Your task to perform on an android device: Search for coffee table on Crate & Barrel Image 0: 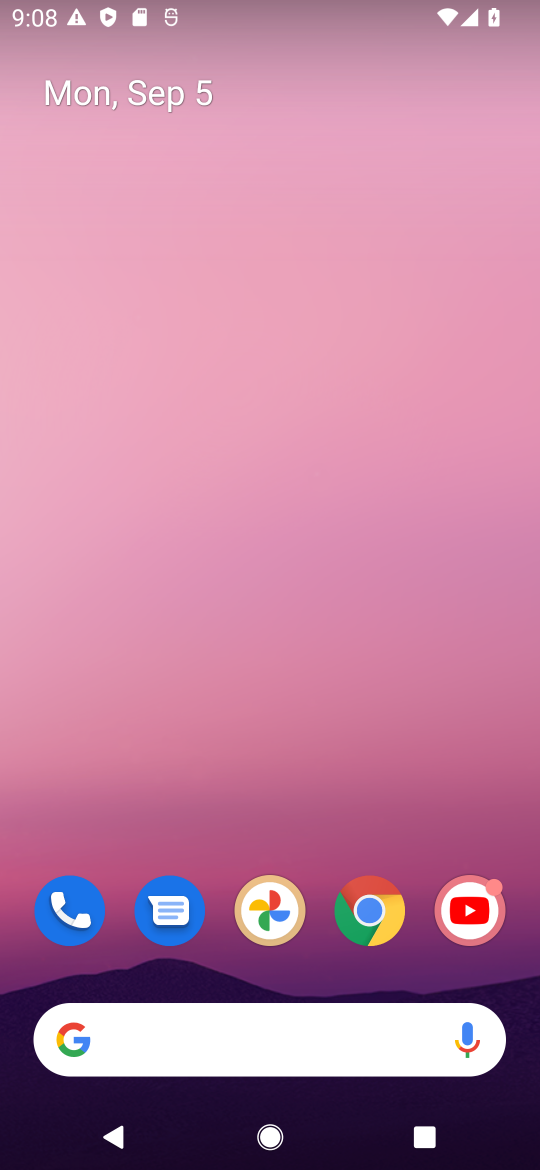
Step 0: click (385, 934)
Your task to perform on an android device: Search for coffee table on Crate & Barrel Image 1: 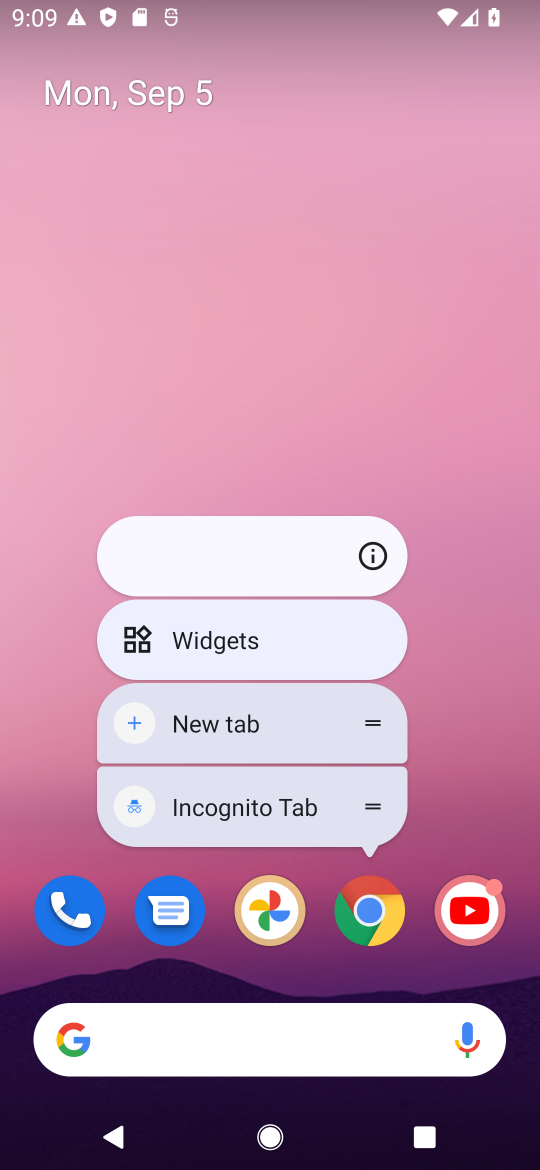
Step 1: click (365, 933)
Your task to perform on an android device: Search for coffee table on Crate & Barrel Image 2: 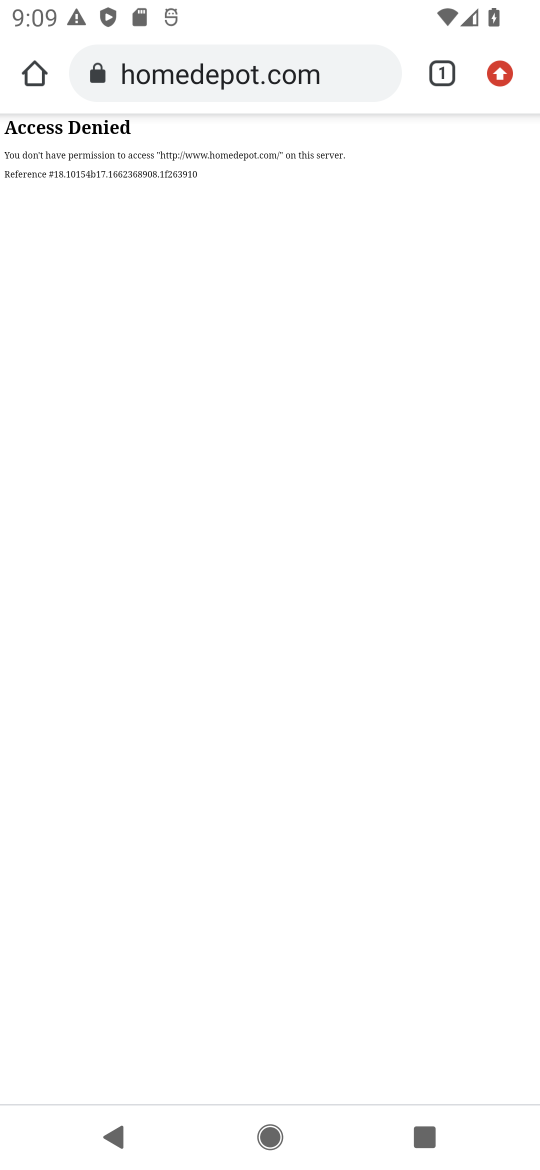
Step 2: click (202, 78)
Your task to perform on an android device: Search for coffee table on Crate & Barrel Image 3: 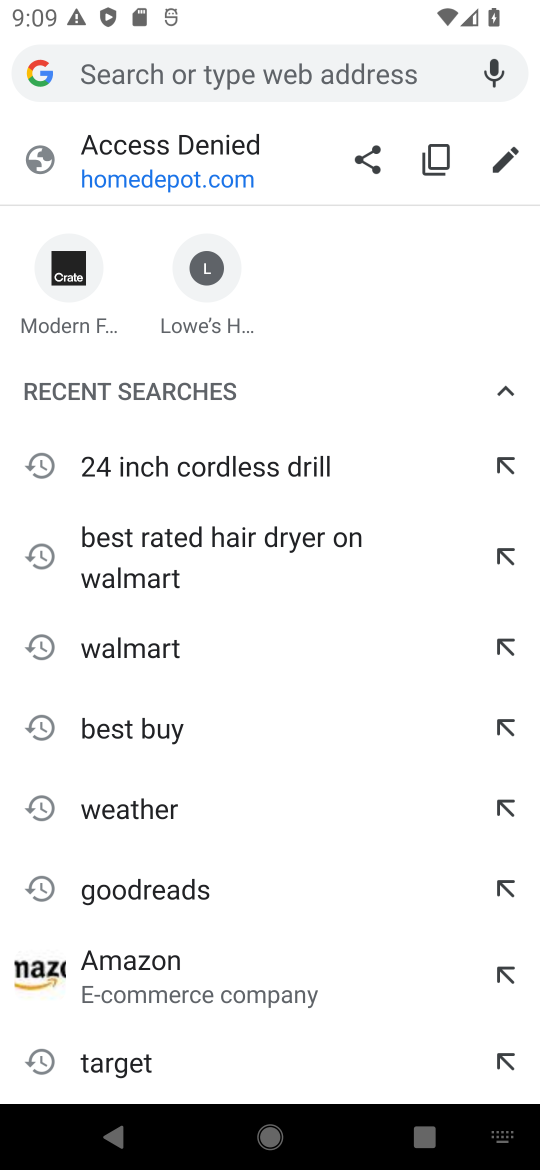
Step 3: type "crate and barrel"
Your task to perform on an android device: Search for coffee table on Crate & Barrel Image 4: 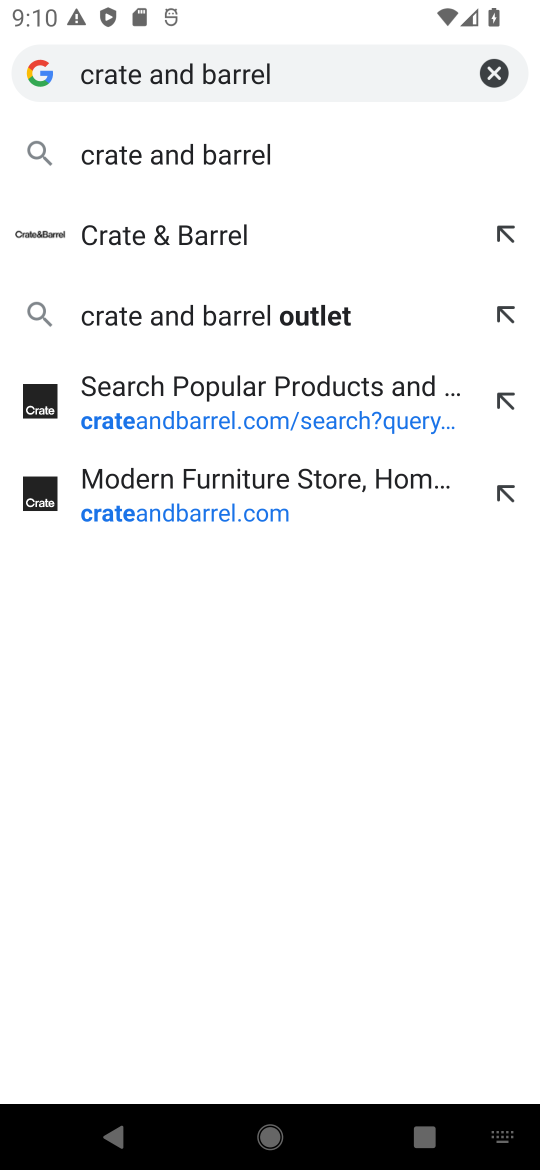
Step 4: click (339, 491)
Your task to perform on an android device: Search for coffee table on Crate & Barrel Image 5: 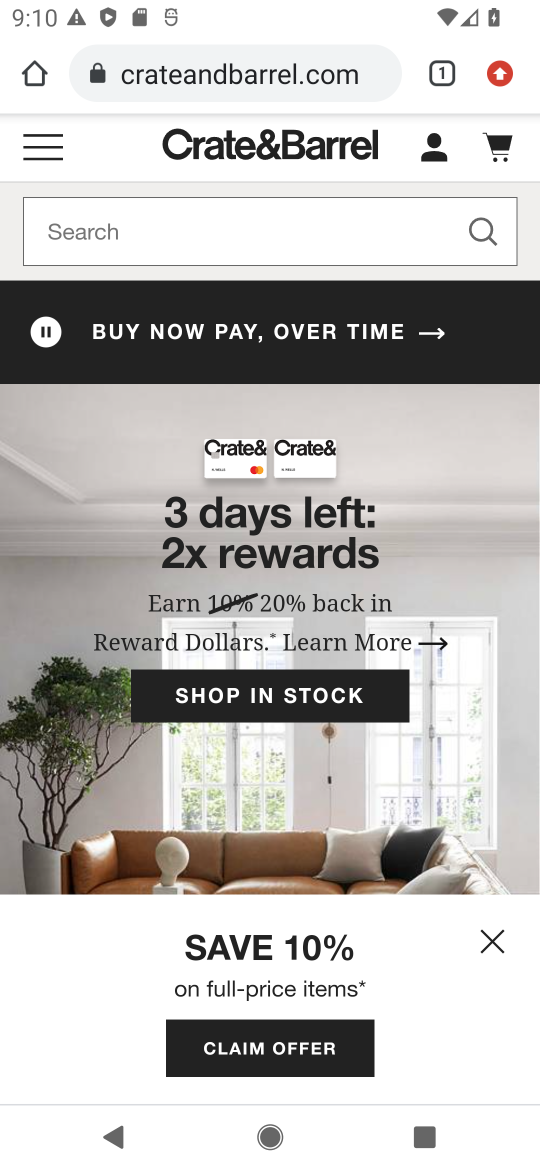
Step 5: click (157, 270)
Your task to perform on an android device: Search for coffee table on Crate & Barrel Image 6: 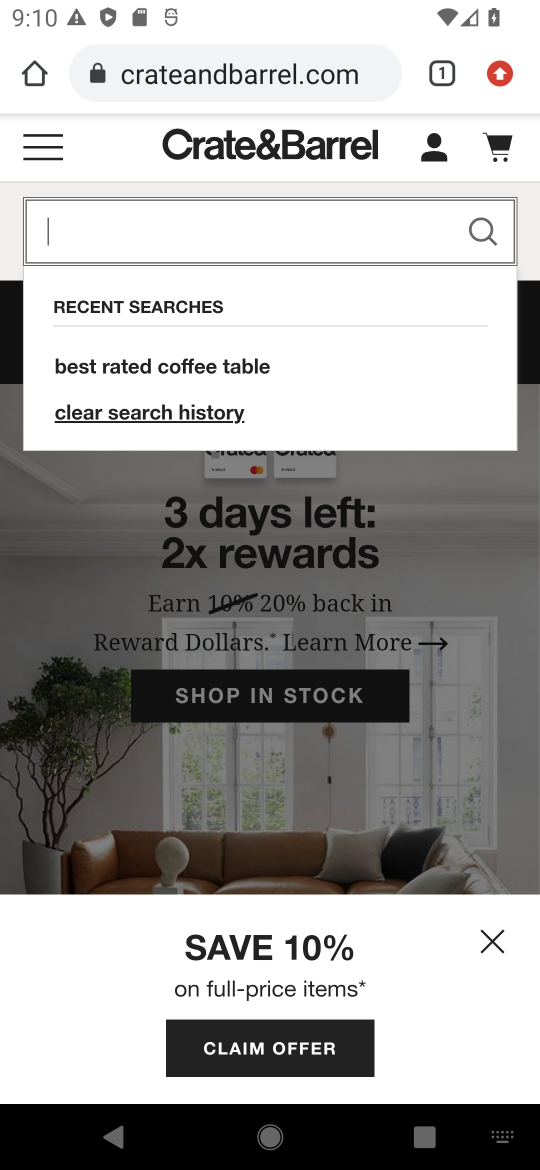
Step 6: type "coffee table"
Your task to perform on an android device: Search for coffee table on Crate & Barrel Image 7: 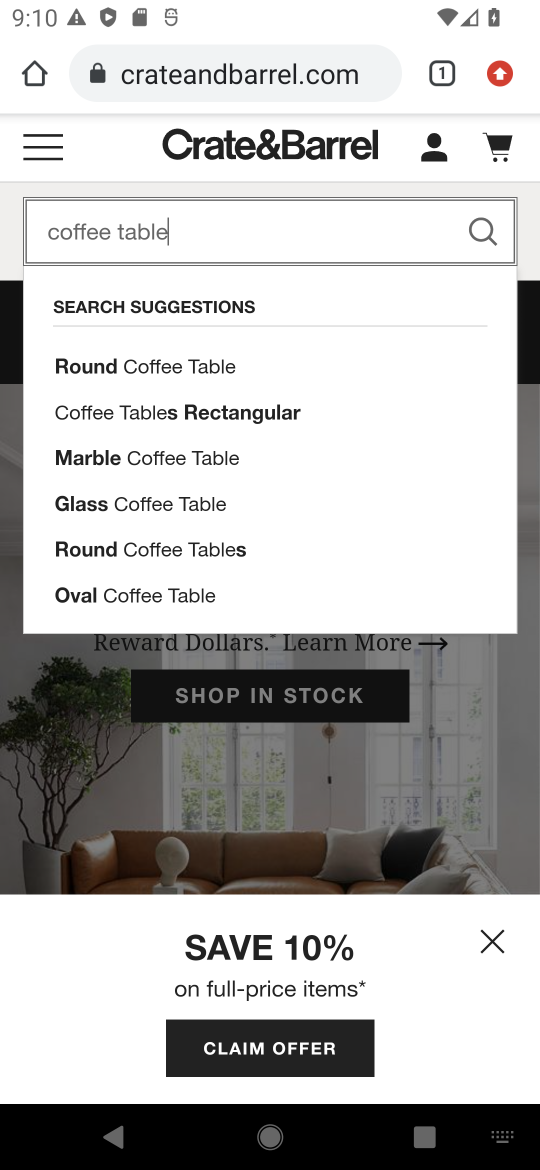
Step 7: press enter
Your task to perform on an android device: Search for coffee table on Crate & Barrel Image 8: 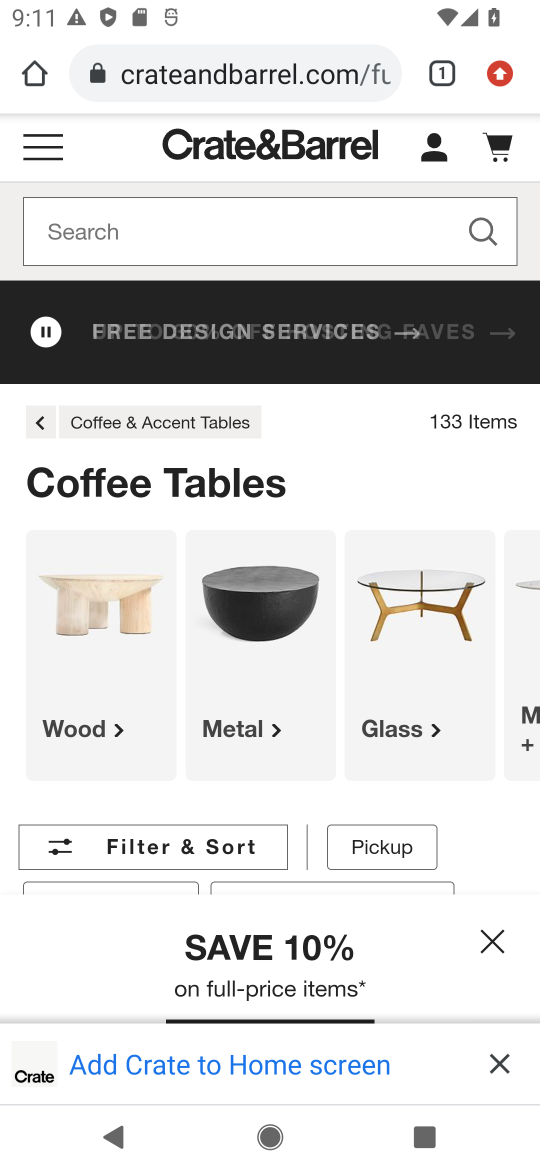
Step 8: task complete